Your task to perform on an android device: Go to Reddit.com Image 0: 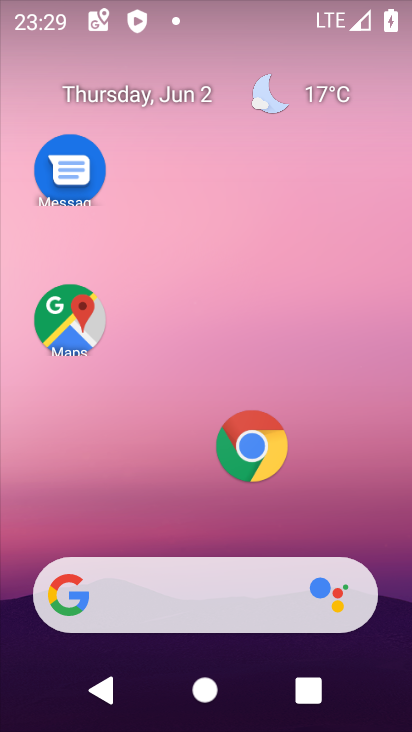
Step 0: click (268, 443)
Your task to perform on an android device: Go to Reddit.com Image 1: 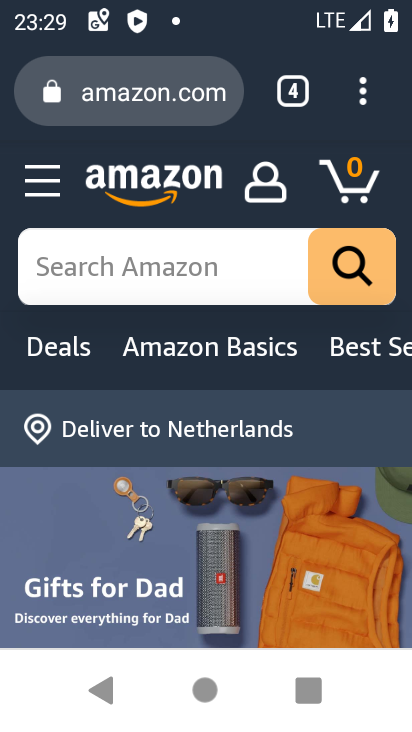
Step 1: click (197, 86)
Your task to perform on an android device: Go to Reddit.com Image 2: 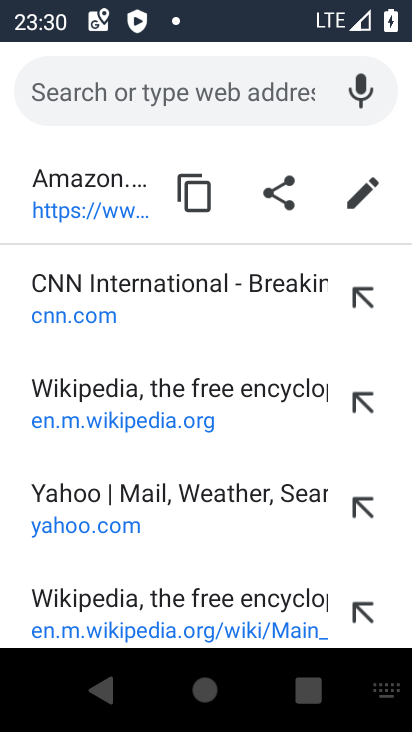
Step 2: type " Reddit.com"
Your task to perform on an android device: Go to Reddit.com Image 3: 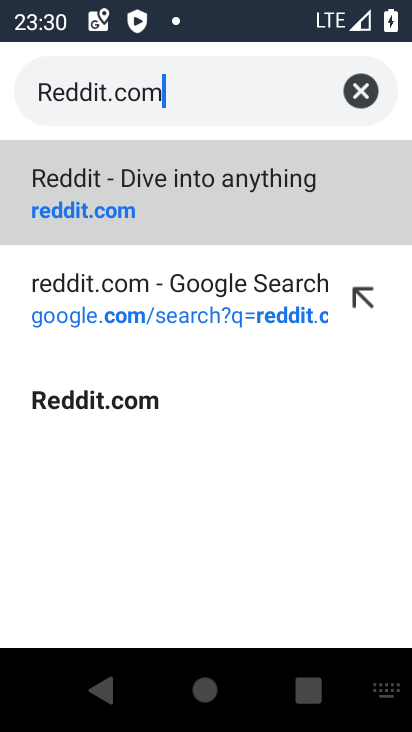
Step 3: type ""
Your task to perform on an android device: Go to Reddit.com Image 4: 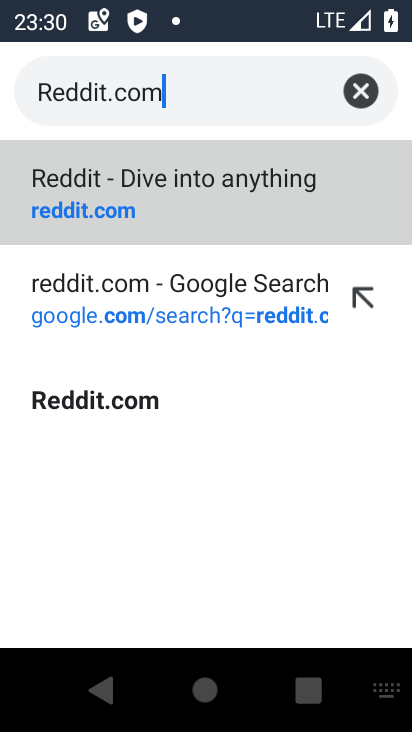
Step 4: click (155, 207)
Your task to perform on an android device: Go to Reddit.com Image 5: 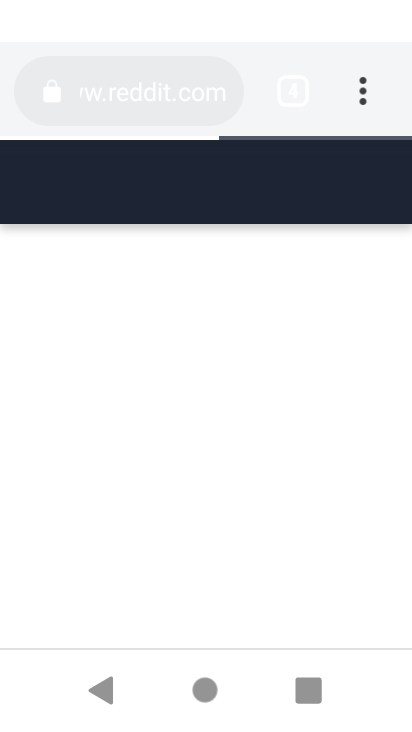
Step 5: task complete